Your task to perform on an android device: Is it going to rain this weekend? Image 0: 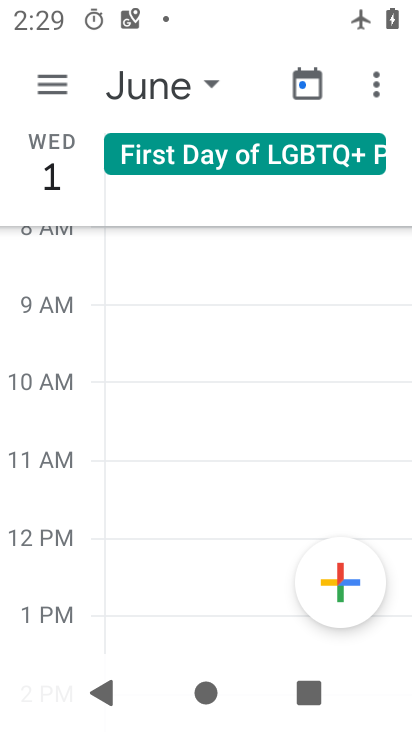
Step 0: press home button
Your task to perform on an android device: Is it going to rain this weekend? Image 1: 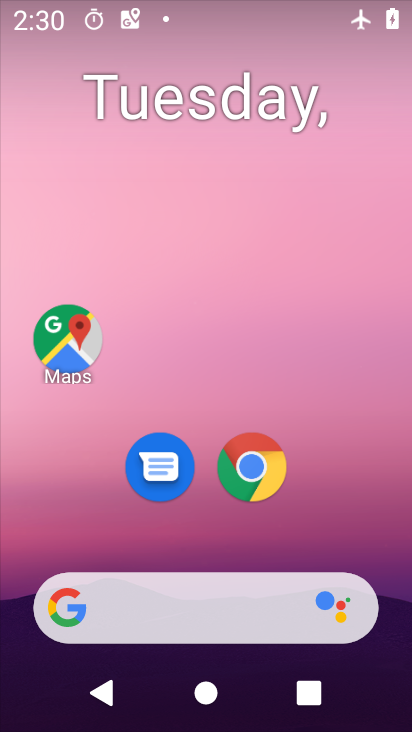
Step 1: click (202, 609)
Your task to perform on an android device: Is it going to rain this weekend? Image 2: 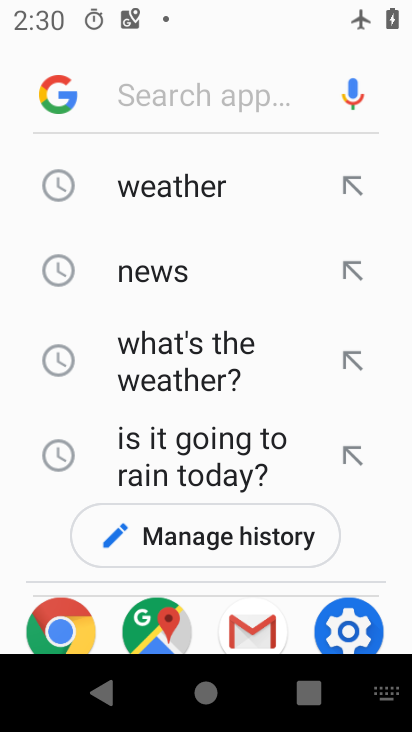
Step 2: click (219, 185)
Your task to perform on an android device: Is it going to rain this weekend? Image 3: 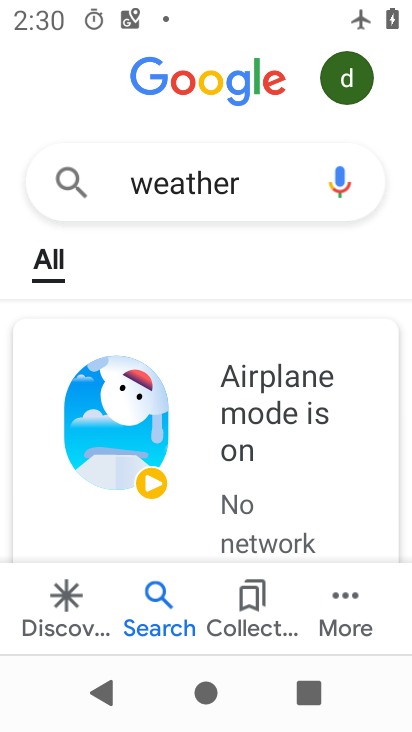
Step 3: task complete